Your task to perform on an android device: change timer sound Image 0: 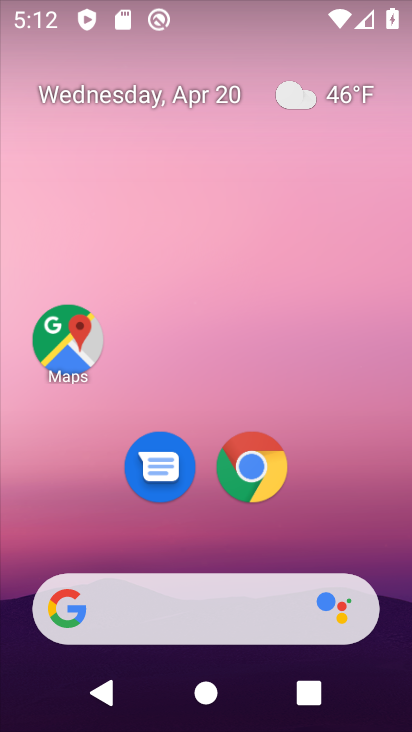
Step 0: drag from (202, 545) to (284, 13)
Your task to perform on an android device: change timer sound Image 1: 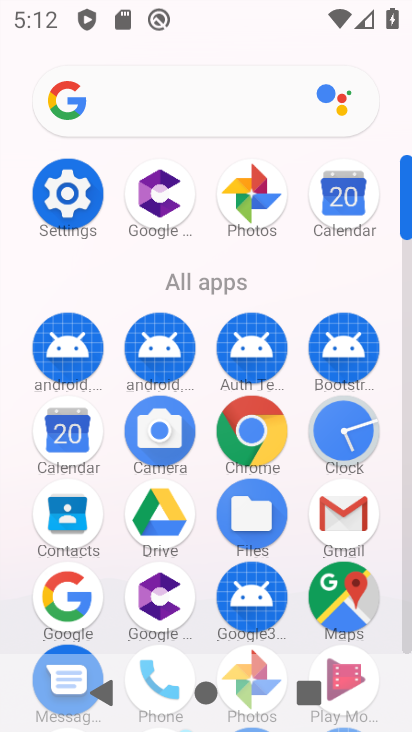
Step 1: click (355, 436)
Your task to perform on an android device: change timer sound Image 2: 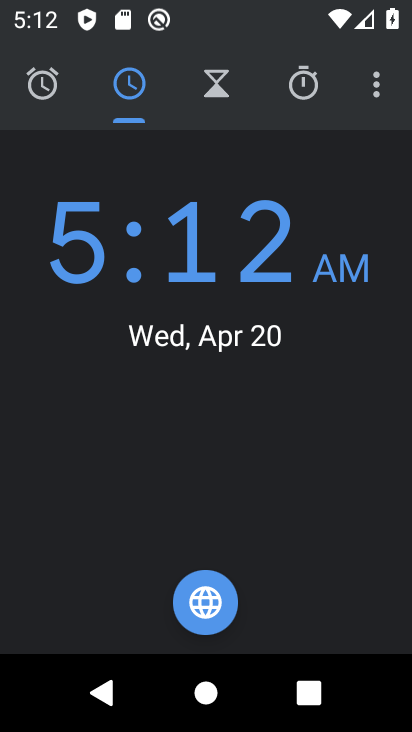
Step 2: click (385, 105)
Your task to perform on an android device: change timer sound Image 3: 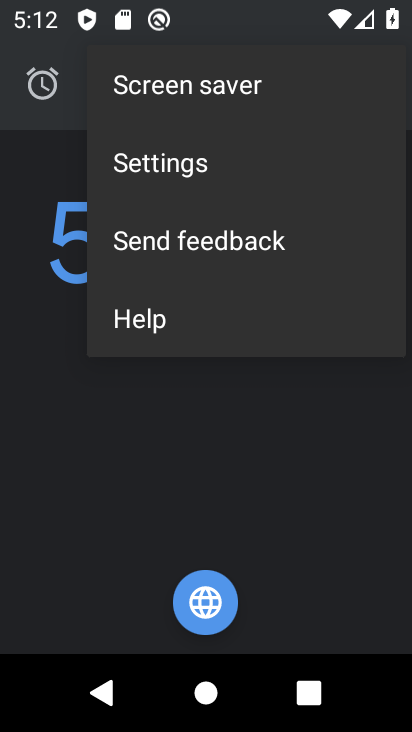
Step 3: click (167, 184)
Your task to perform on an android device: change timer sound Image 4: 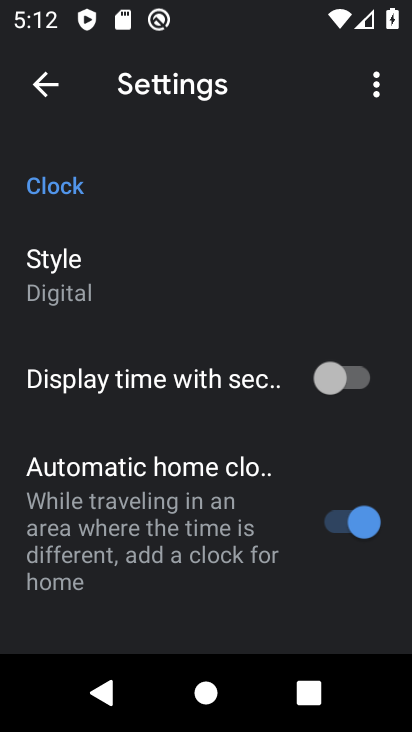
Step 4: drag from (104, 524) to (169, 185)
Your task to perform on an android device: change timer sound Image 5: 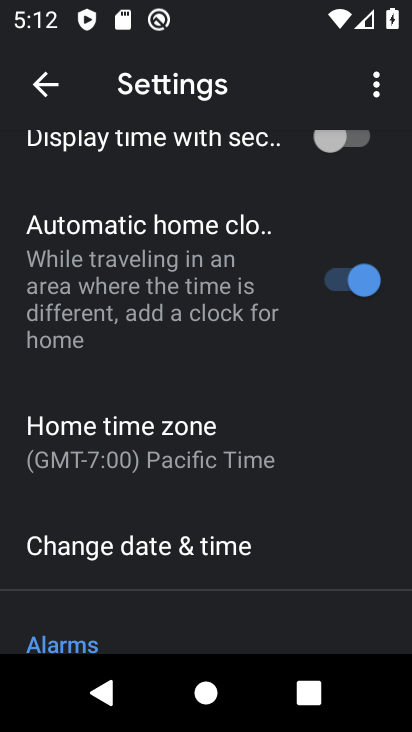
Step 5: drag from (133, 466) to (178, 63)
Your task to perform on an android device: change timer sound Image 6: 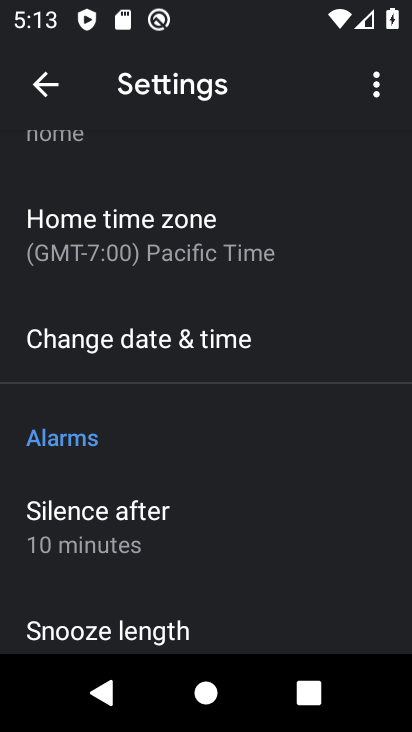
Step 6: drag from (124, 542) to (215, 92)
Your task to perform on an android device: change timer sound Image 7: 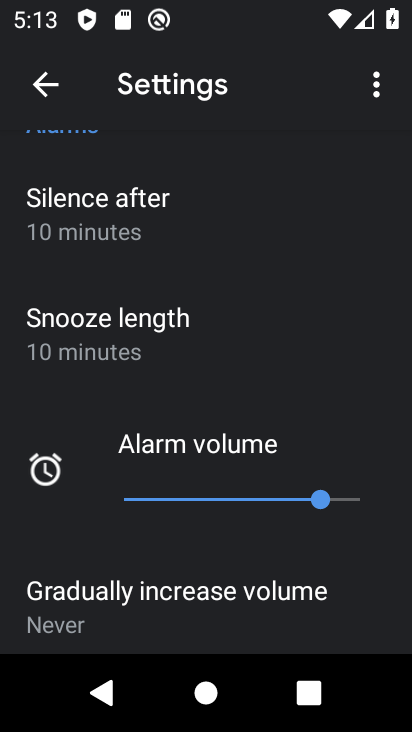
Step 7: drag from (127, 549) to (227, 153)
Your task to perform on an android device: change timer sound Image 8: 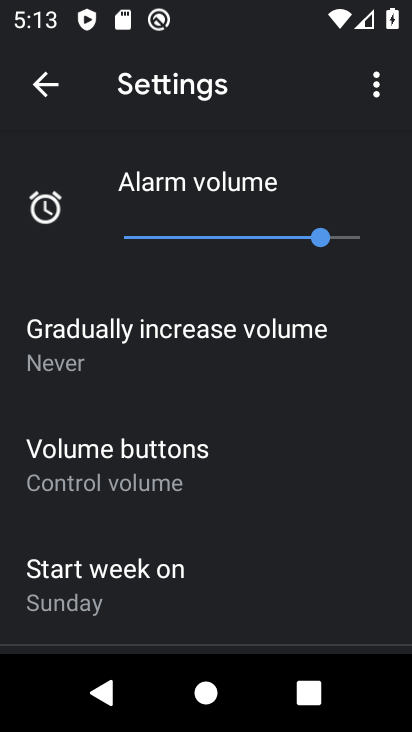
Step 8: drag from (160, 428) to (235, 158)
Your task to perform on an android device: change timer sound Image 9: 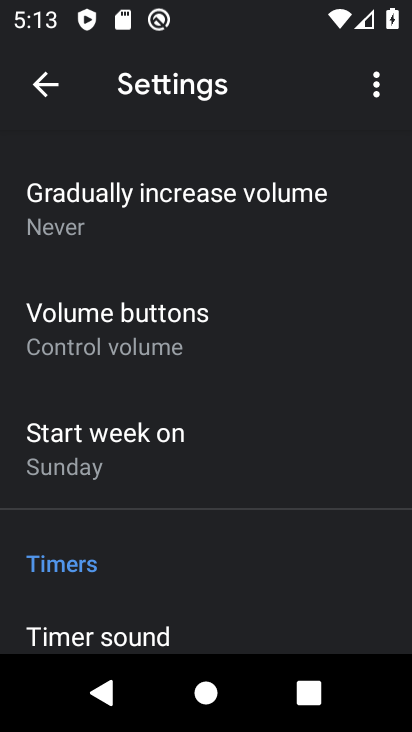
Step 9: drag from (72, 574) to (154, 170)
Your task to perform on an android device: change timer sound Image 10: 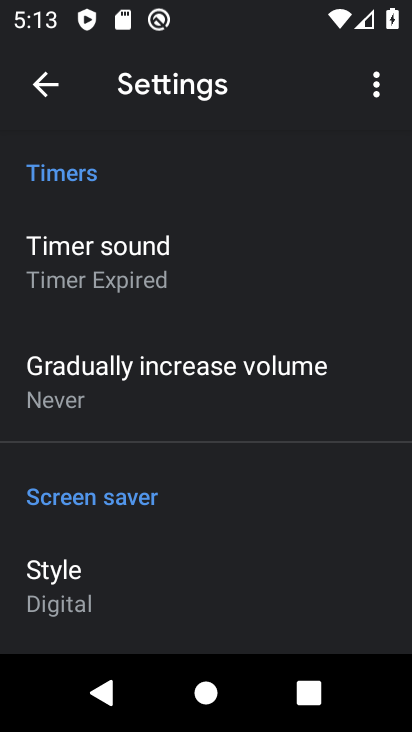
Step 10: click (116, 278)
Your task to perform on an android device: change timer sound Image 11: 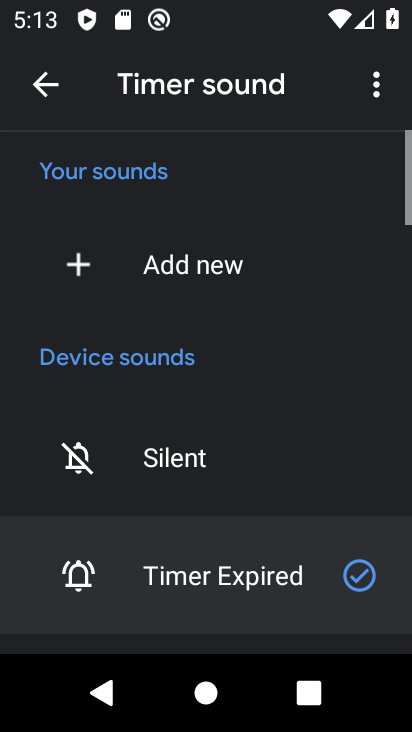
Step 11: drag from (174, 387) to (216, 235)
Your task to perform on an android device: change timer sound Image 12: 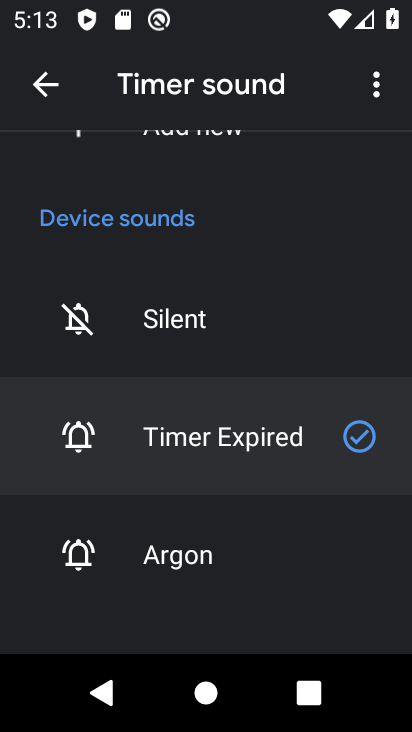
Step 12: click (184, 557)
Your task to perform on an android device: change timer sound Image 13: 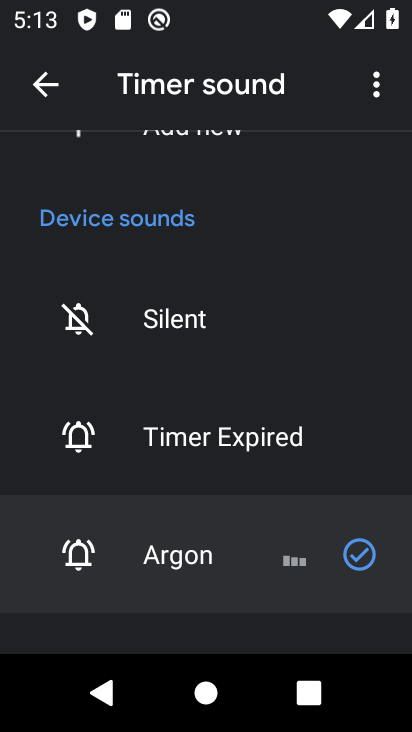
Step 13: task complete